Your task to perform on an android device: Open wifi settings Image 0: 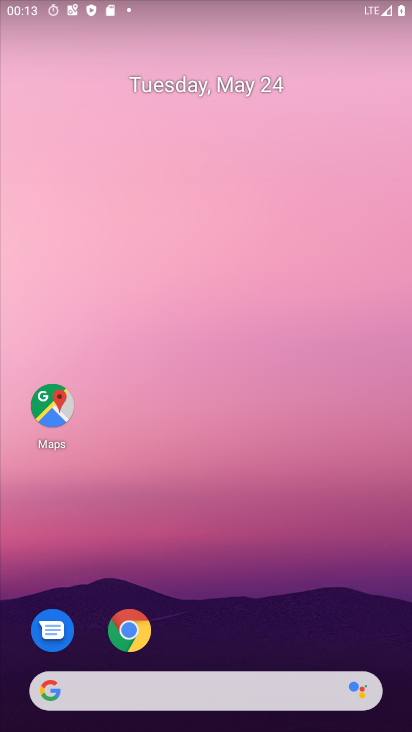
Step 0: drag from (299, 657) to (298, 42)
Your task to perform on an android device: Open wifi settings Image 1: 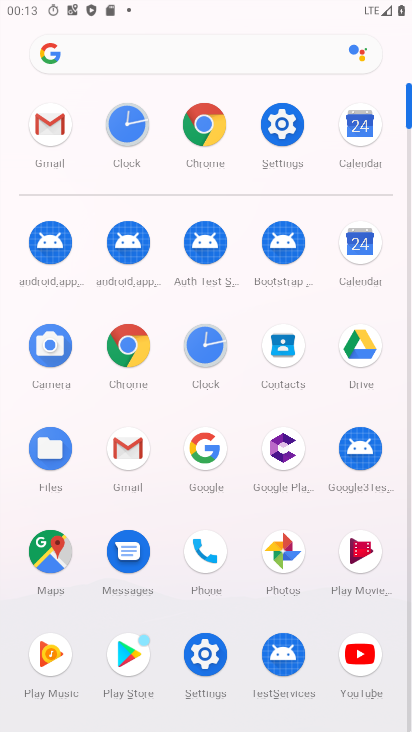
Step 1: click (285, 126)
Your task to perform on an android device: Open wifi settings Image 2: 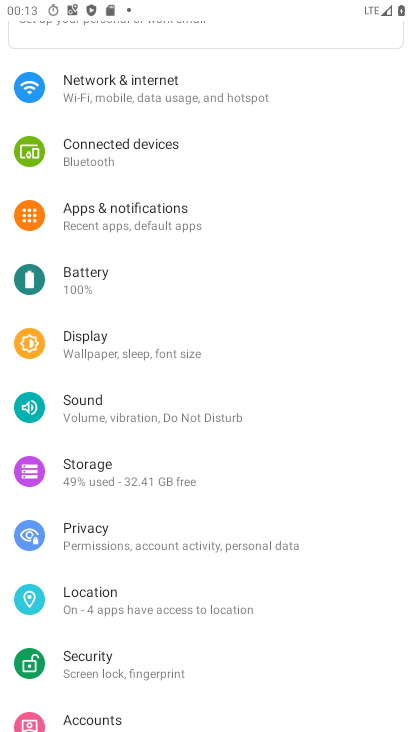
Step 2: click (68, 95)
Your task to perform on an android device: Open wifi settings Image 3: 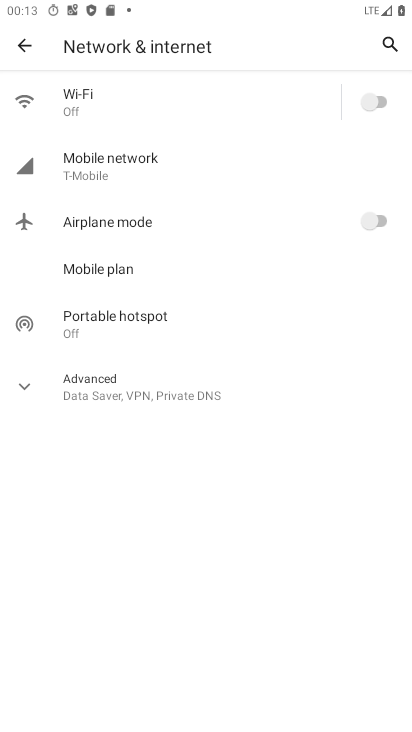
Step 3: click (68, 99)
Your task to perform on an android device: Open wifi settings Image 4: 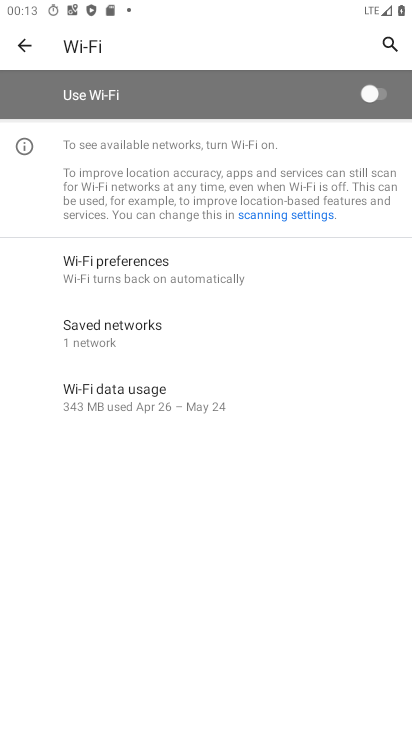
Step 4: task complete